Your task to perform on an android device: Search for Italian restaurants on Maps Image 0: 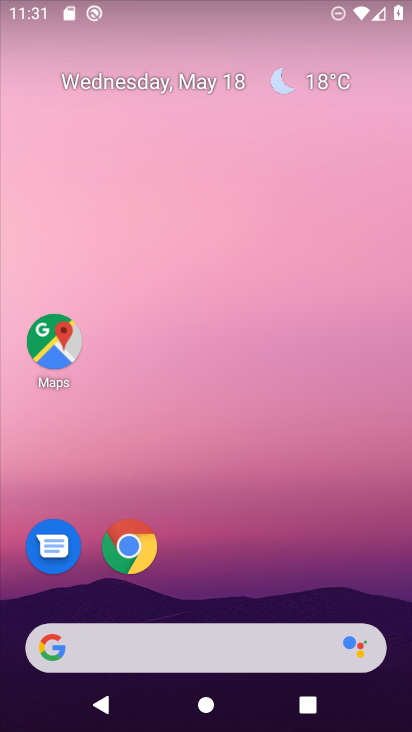
Step 0: drag from (212, 726) to (194, 214)
Your task to perform on an android device: Search for Italian restaurants on Maps Image 1: 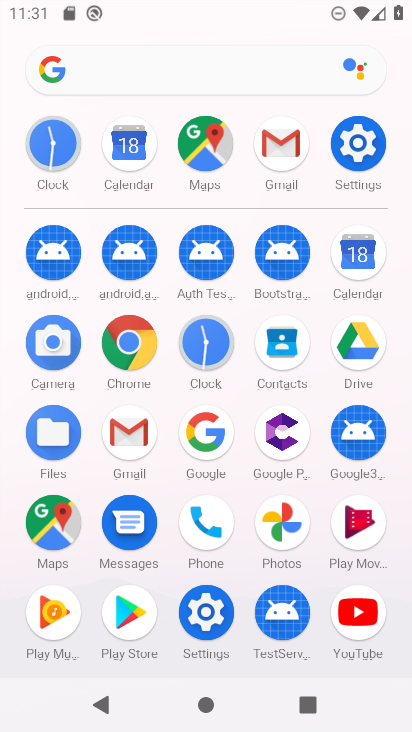
Step 1: click (43, 524)
Your task to perform on an android device: Search for Italian restaurants on Maps Image 2: 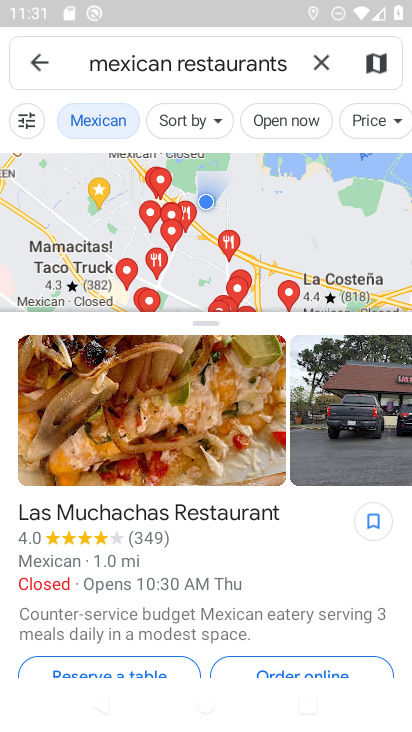
Step 2: click (324, 57)
Your task to perform on an android device: Search for Italian restaurants on Maps Image 3: 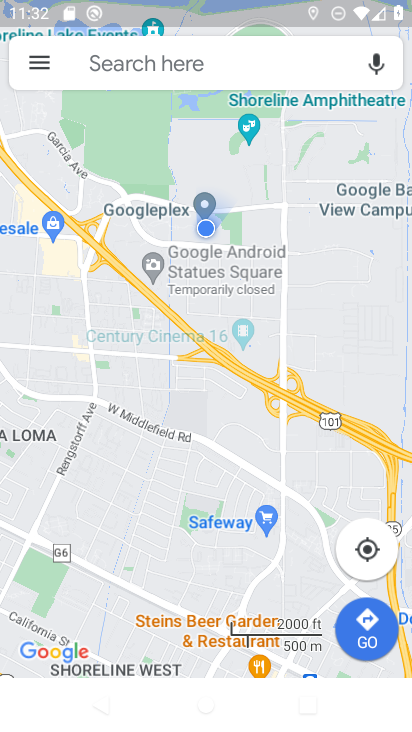
Step 3: click (185, 64)
Your task to perform on an android device: Search for Italian restaurants on Maps Image 4: 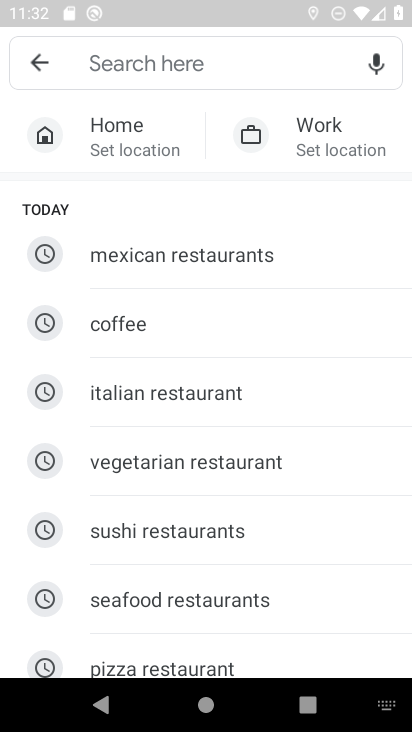
Step 4: type "Italian restaurants"
Your task to perform on an android device: Search for Italian restaurants on Maps Image 5: 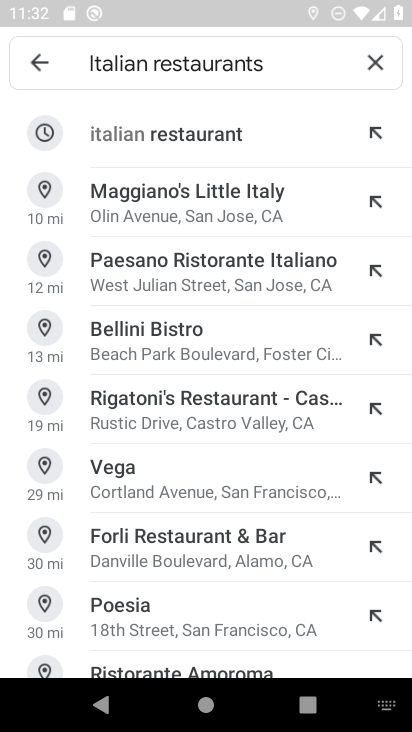
Step 5: click (204, 137)
Your task to perform on an android device: Search for Italian restaurants on Maps Image 6: 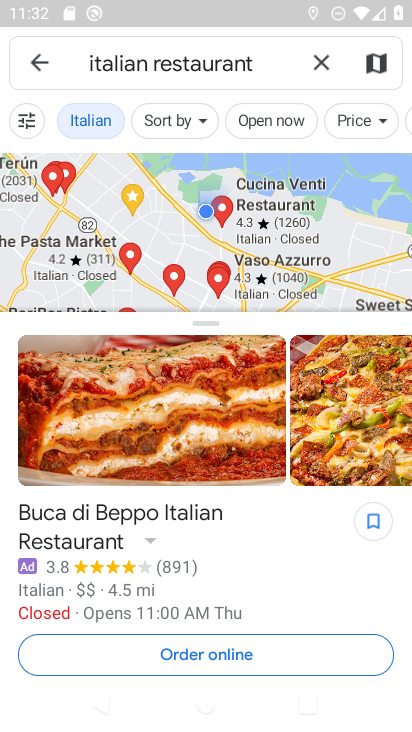
Step 6: task complete